Your task to perform on an android device: Search for sushi restaurants on Maps Image 0: 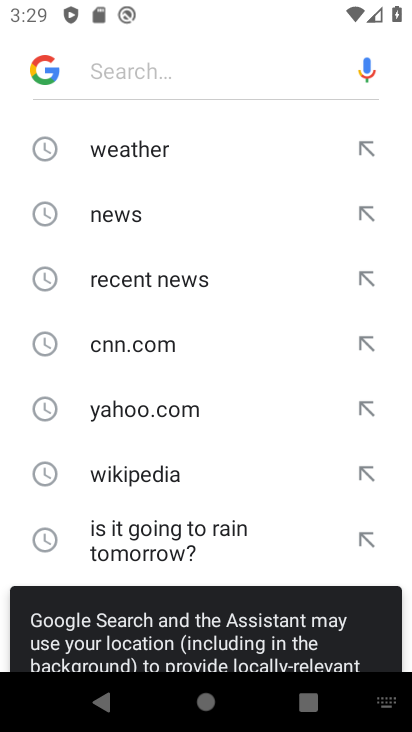
Step 0: press home button
Your task to perform on an android device: Search for sushi restaurants on Maps Image 1: 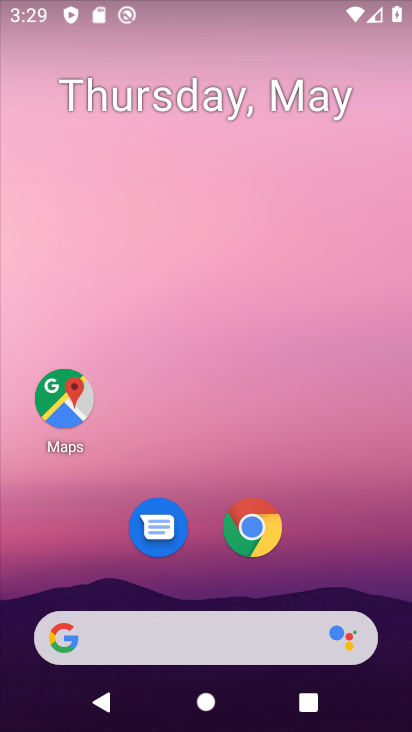
Step 1: click (65, 402)
Your task to perform on an android device: Search for sushi restaurants on Maps Image 2: 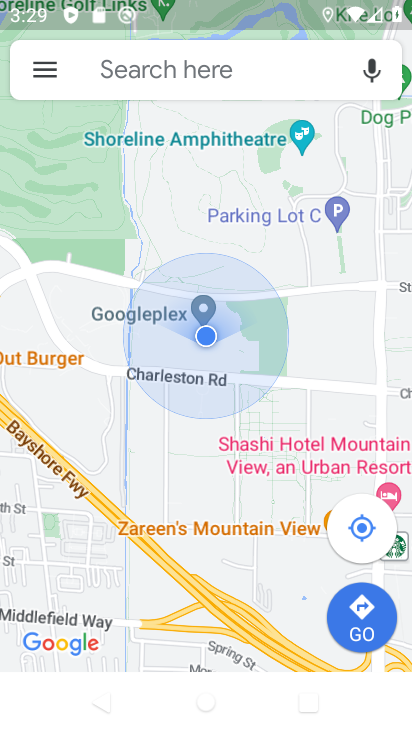
Step 2: click (140, 72)
Your task to perform on an android device: Search for sushi restaurants on Maps Image 3: 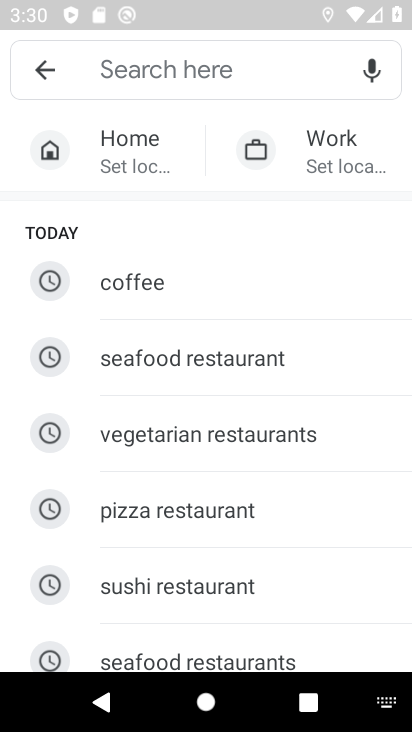
Step 3: type "sushi restaurants"
Your task to perform on an android device: Search for sushi restaurants on Maps Image 4: 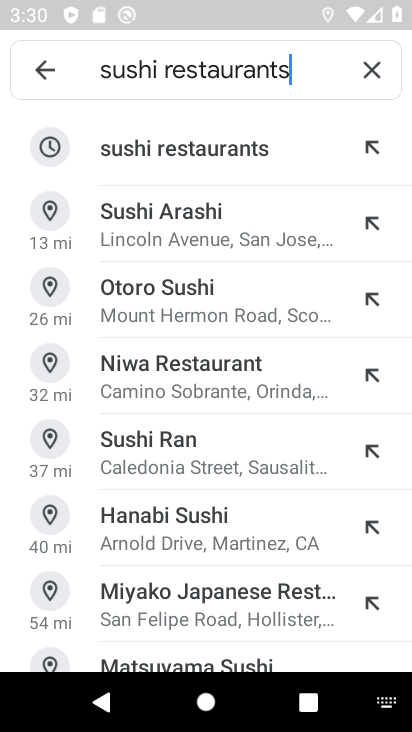
Step 4: click (177, 160)
Your task to perform on an android device: Search for sushi restaurants on Maps Image 5: 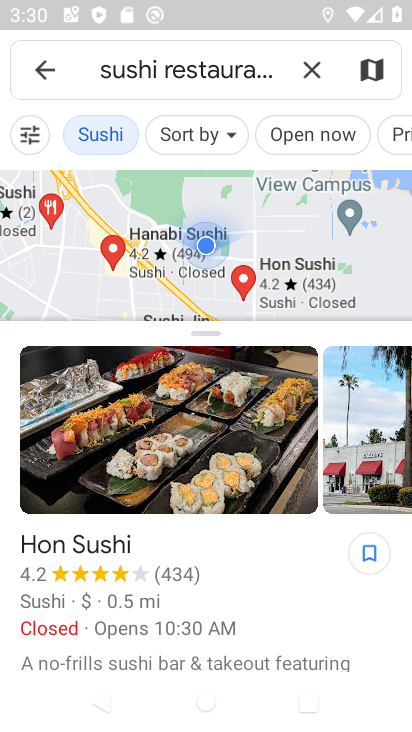
Step 5: task complete